Your task to perform on an android device: Open Reddit.com Image 0: 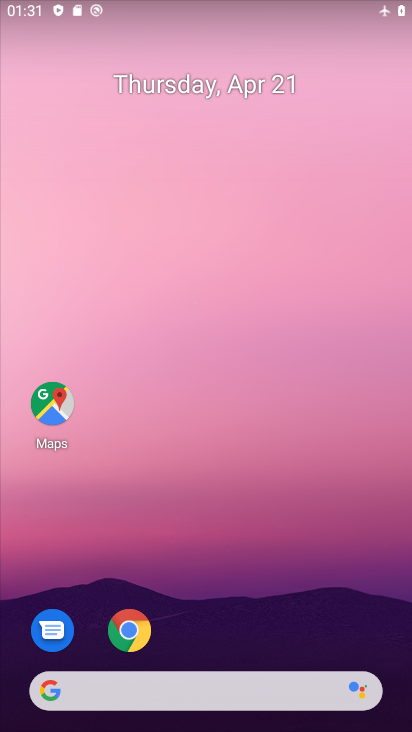
Step 0: click (128, 623)
Your task to perform on an android device: Open Reddit.com Image 1: 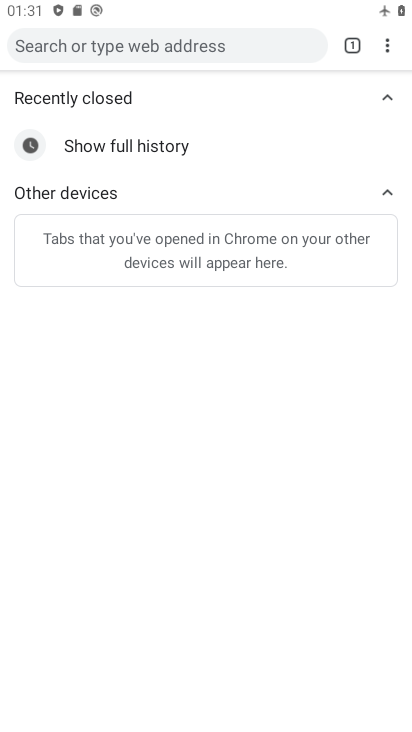
Step 1: click (236, 45)
Your task to perform on an android device: Open Reddit.com Image 2: 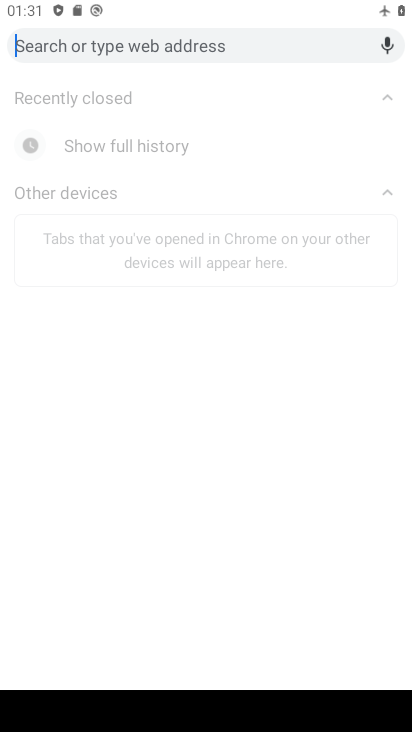
Step 2: type "reddit.com"
Your task to perform on an android device: Open Reddit.com Image 3: 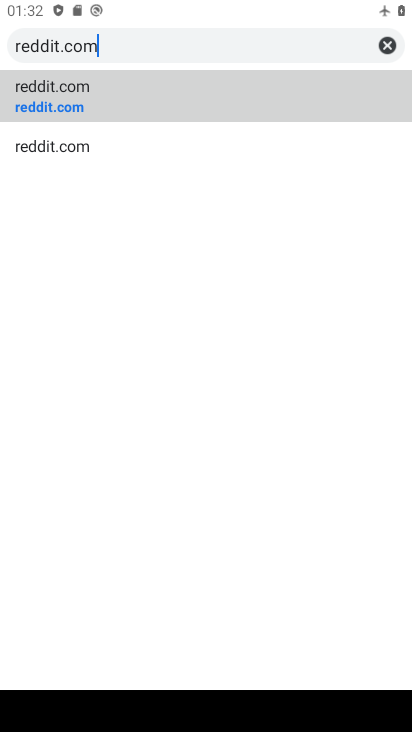
Step 3: click (247, 102)
Your task to perform on an android device: Open Reddit.com Image 4: 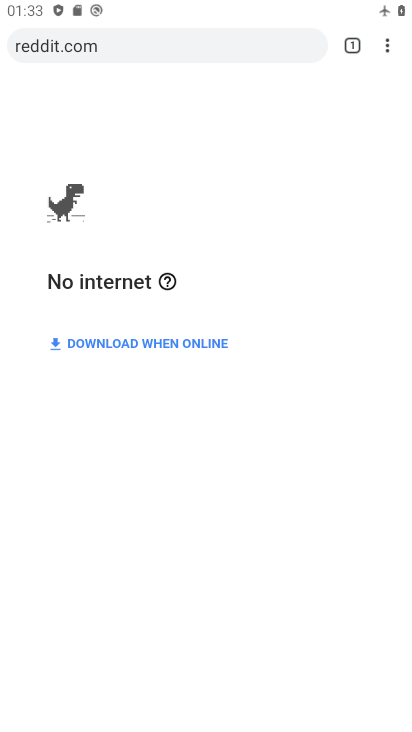
Step 4: task complete